Your task to perform on an android device: clear history in the chrome app Image 0: 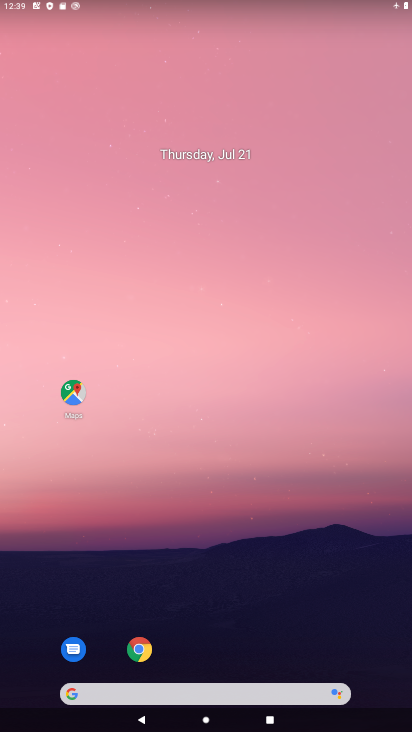
Step 0: click (139, 649)
Your task to perform on an android device: clear history in the chrome app Image 1: 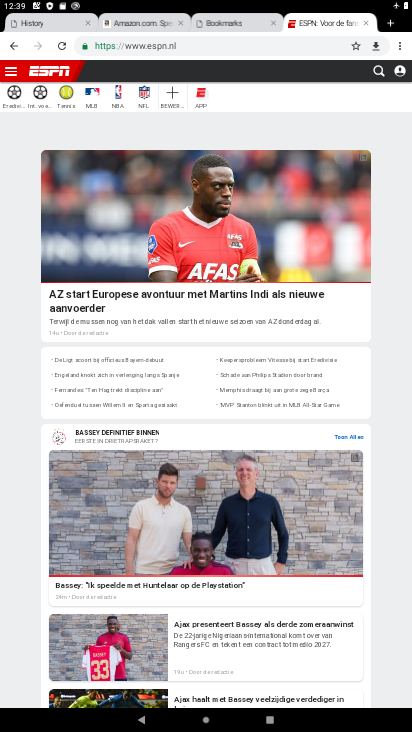
Step 1: click (399, 46)
Your task to perform on an android device: clear history in the chrome app Image 2: 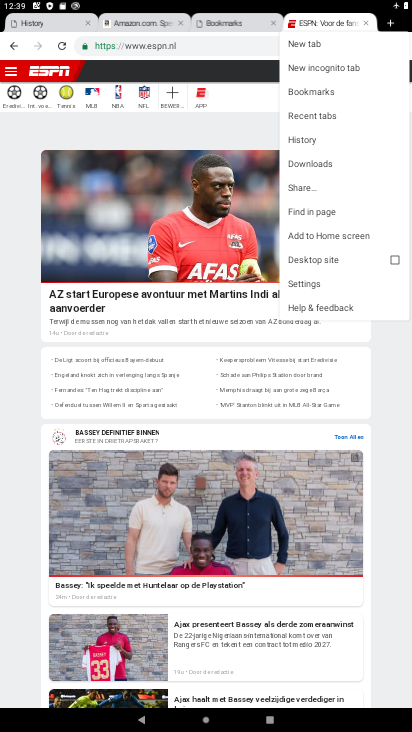
Step 2: click (310, 139)
Your task to perform on an android device: clear history in the chrome app Image 3: 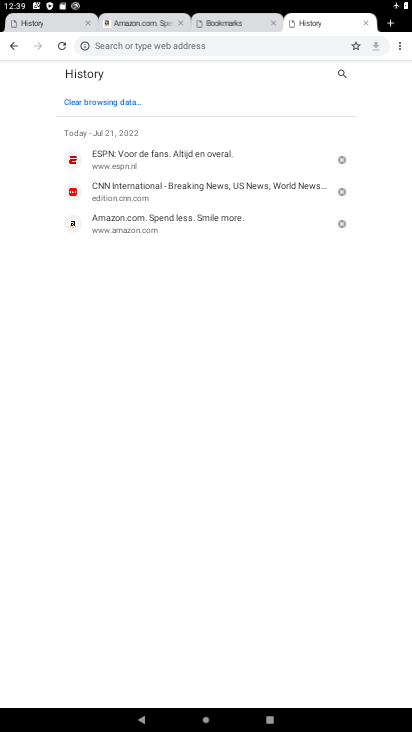
Step 3: click (96, 98)
Your task to perform on an android device: clear history in the chrome app Image 4: 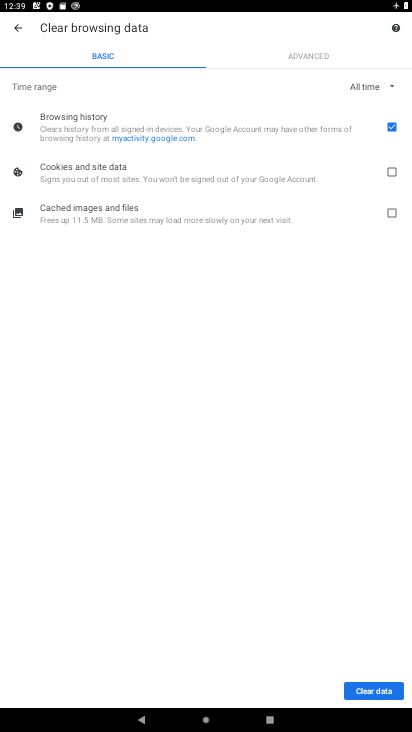
Step 4: click (386, 692)
Your task to perform on an android device: clear history in the chrome app Image 5: 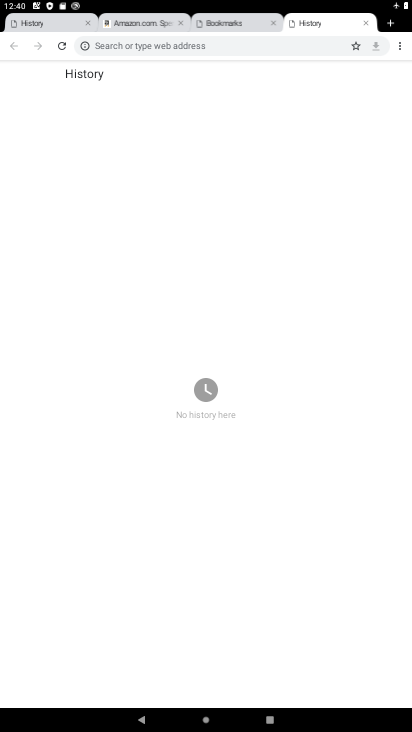
Step 5: task complete